Your task to perform on an android device: open app "Cash App" (install if not already installed) and enter user name: "submodules@gmail.com" and password: "heavenly" Image 0: 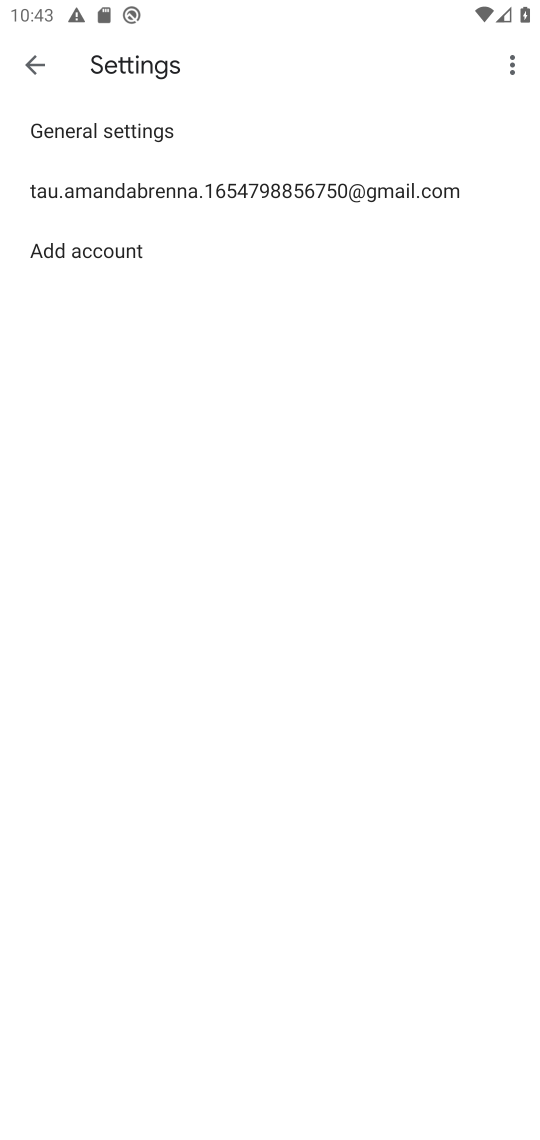
Step 0: press home button
Your task to perform on an android device: open app "Cash App" (install if not already installed) and enter user name: "submodules@gmail.com" and password: "heavenly" Image 1: 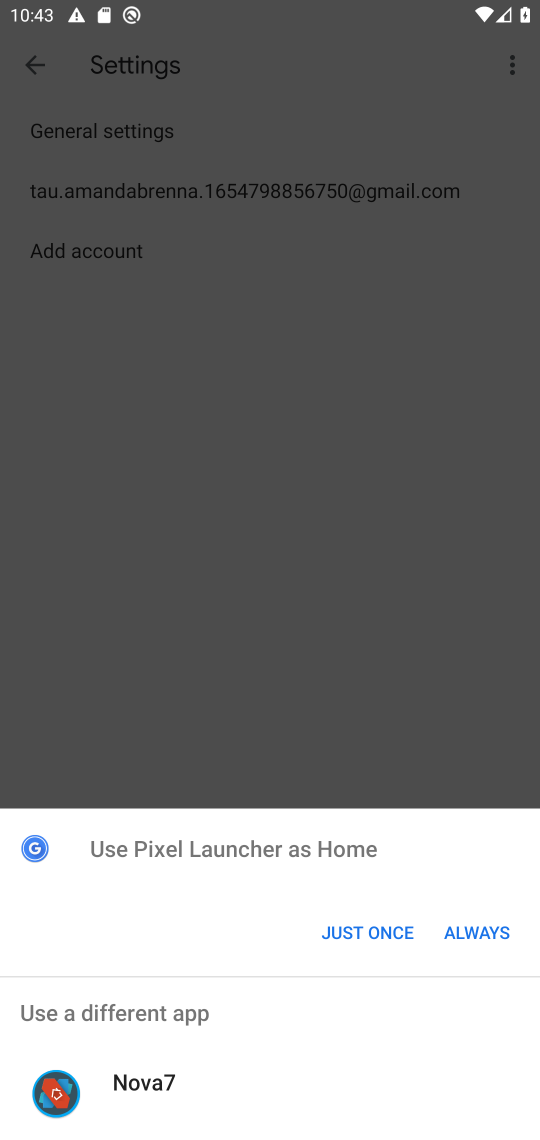
Step 1: press home button
Your task to perform on an android device: open app "Cash App" (install if not already installed) and enter user name: "submodules@gmail.com" and password: "heavenly" Image 2: 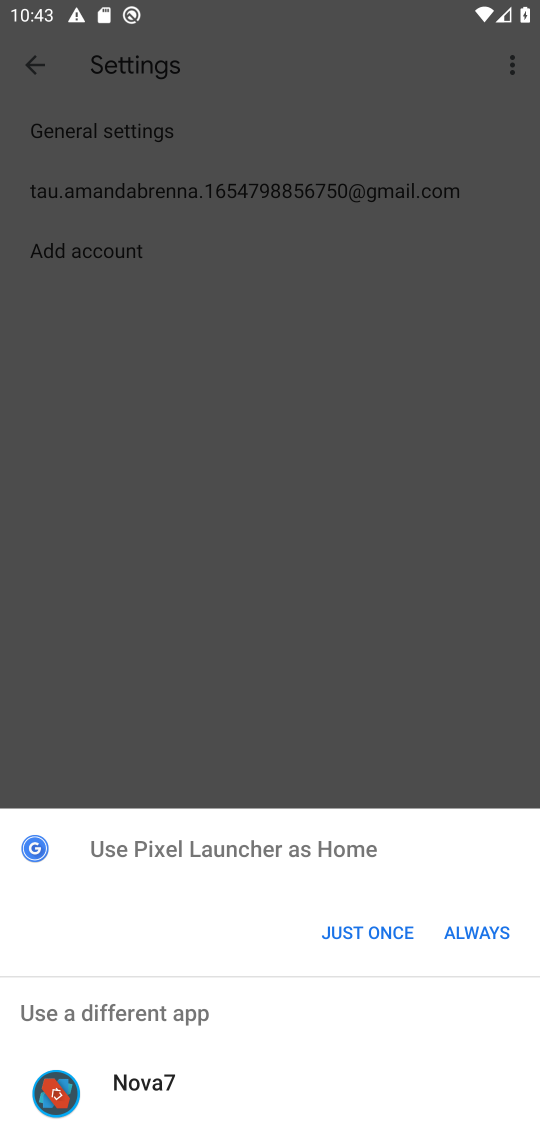
Step 2: press home button
Your task to perform on an android device: open app "Cash App" (install if not already installed) and enter user name: "submodules@gmail.com" and password: "heavenly" Image 3: 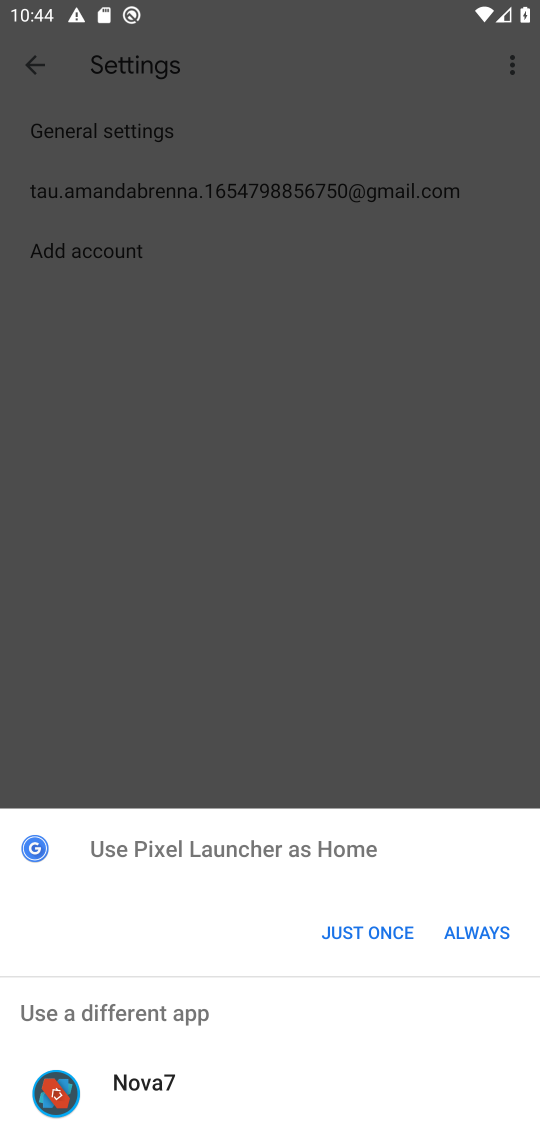
Step 3: click (352, 921)
Your task to perform on an android device: open app "Cash App" (install if not already installed) and enter user name: "submodules@gmail.com" and password: "heavenly" Image 4: 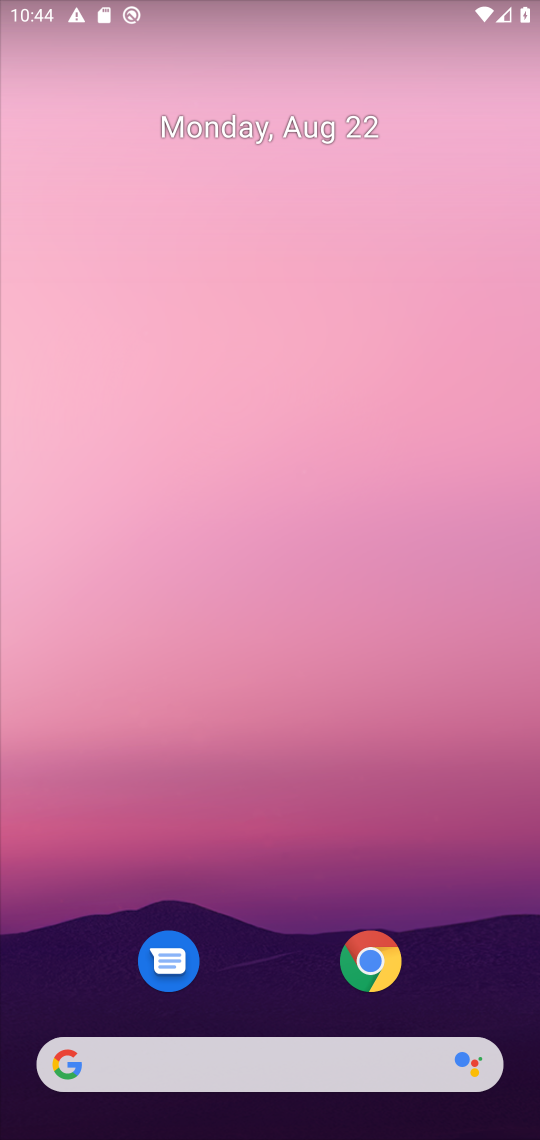
Step 4: drag from (263, 1024) to (309, 3)
Your task to perform on an android device: open app "Cash App" (install if not already installed) and enter user name: "submodules@gmail.com" and password: "heavenly" Image 5: 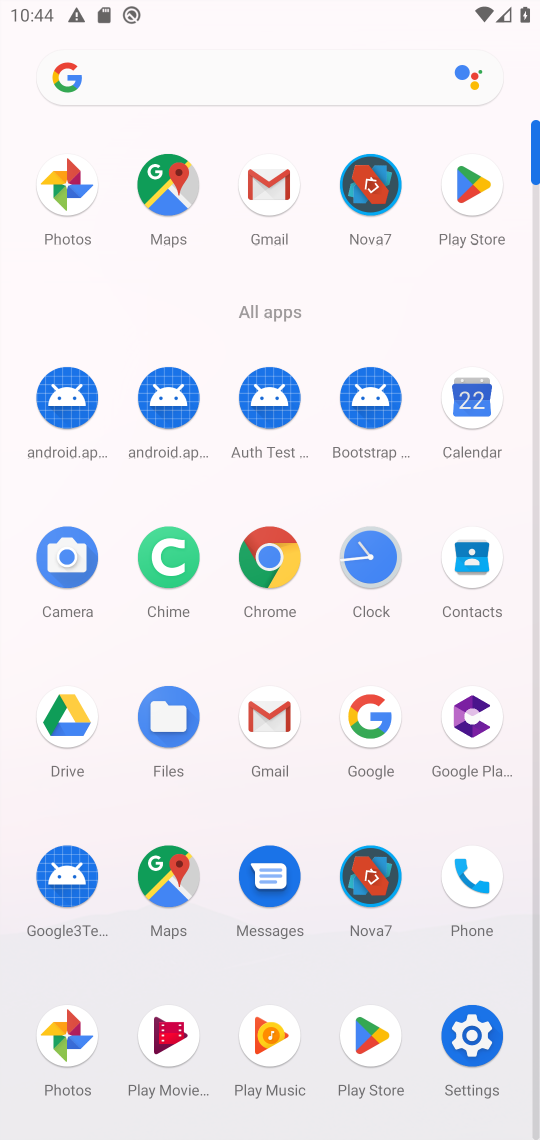
Step 5: click (477, 203)
Your task to perform on an android device: open app "Cash App" (install if not already installed) and enter user name: "submodules@gmail.com" and password: "heavenly" Image 6: 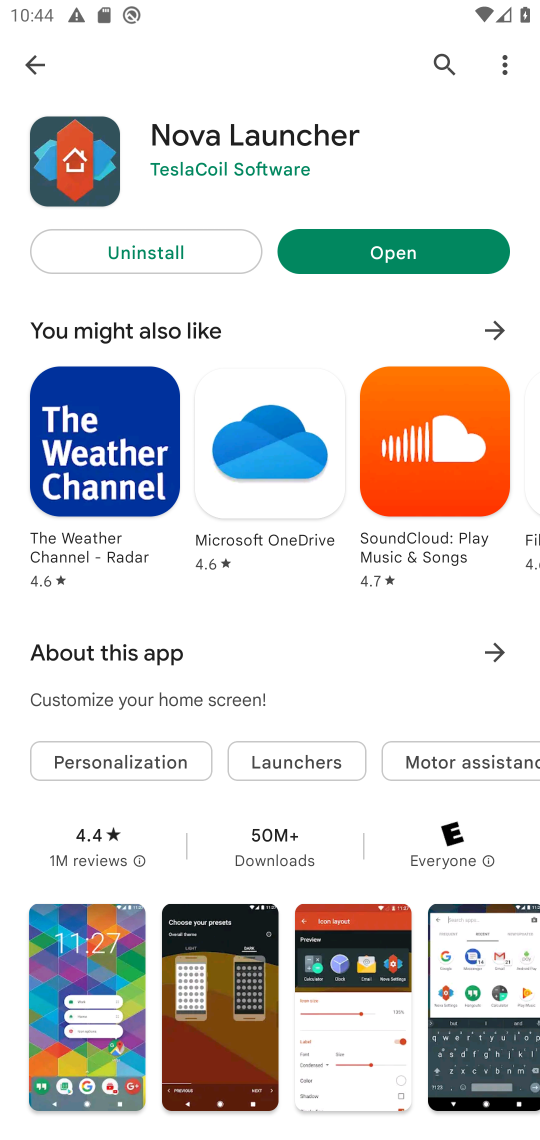
Step 6: click (456, 59)
Your task to perform on an android device: open app "Cash App" (install if not already installed) and enter user name: "submodules@gmail.com" and password: "heavenly" Image 7: 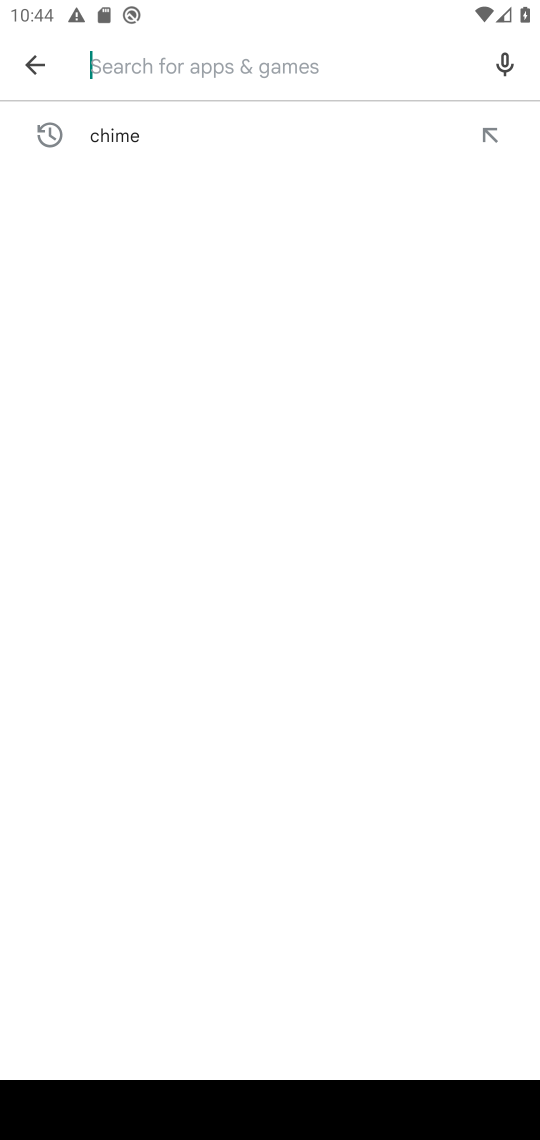
Step 7: type "cash app"
Your task to perform on an android device: open app "Cash App" (install if not already installed) and enter user name: "submodules@gmail.com" and password: "heavenly" Image 8: 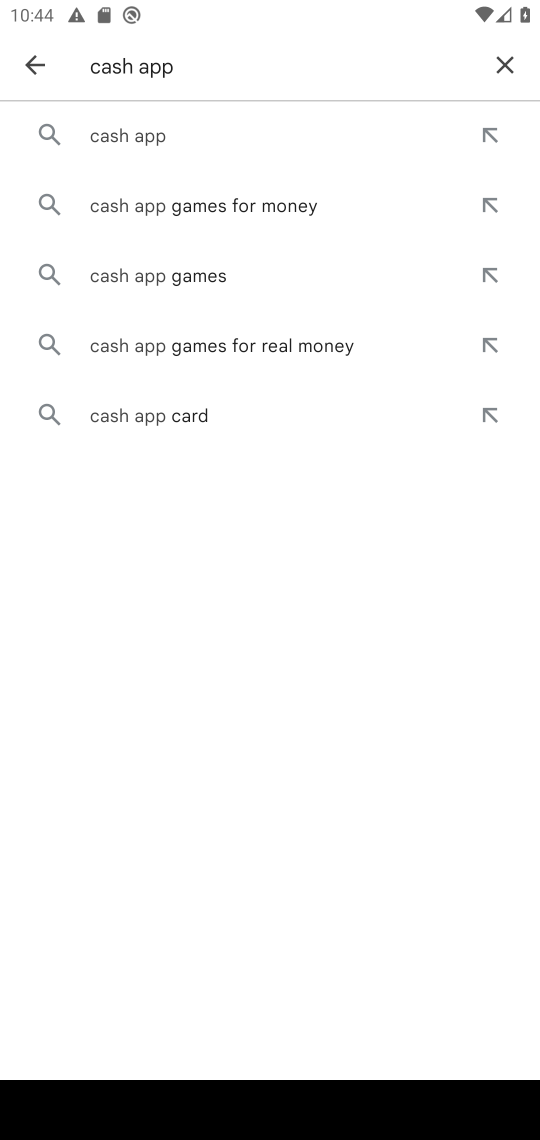
Step 8: click (203, 140)
Your task to perform on an android device: open app "Cash App" (install if not already installed) and enter user name: "submodules@gmail.com" and password: "heavenly" Image 9: 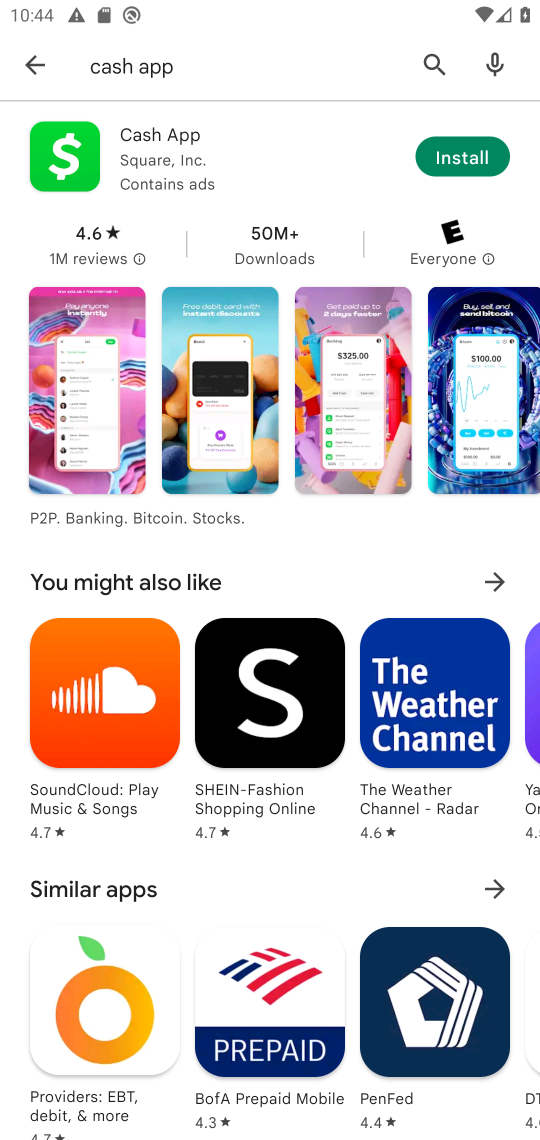
Step 9: click (435, 172)
Your task to perform on an android device: open app "Cash App" (install if not already installed) and enter user name: "submodules@gmail.com" and password: "heavenly" Image 10: 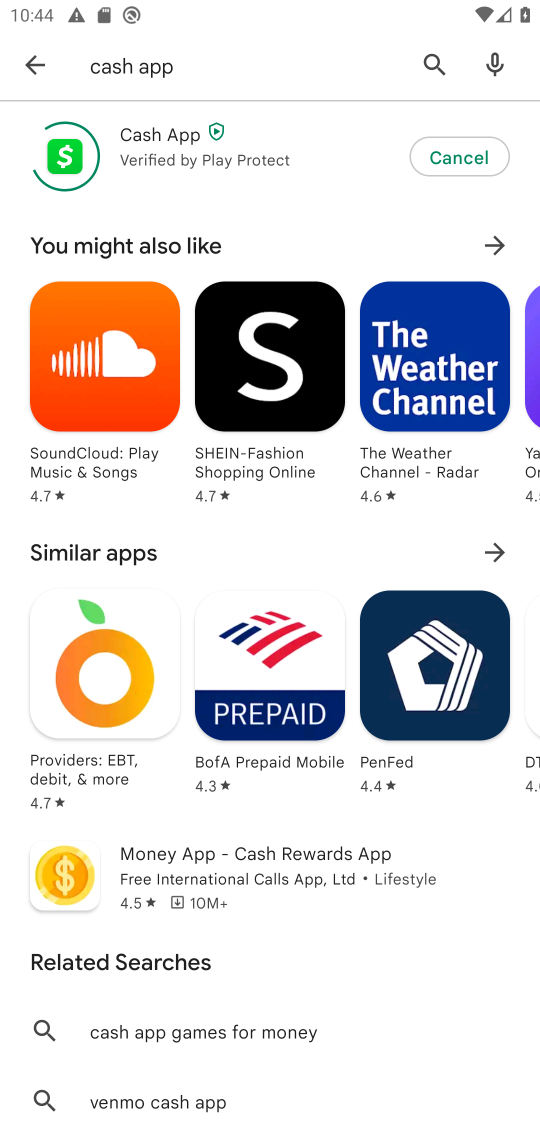
Step 10: task complete